Your task to perform on an android device: What's on my calendar today? Image 0: 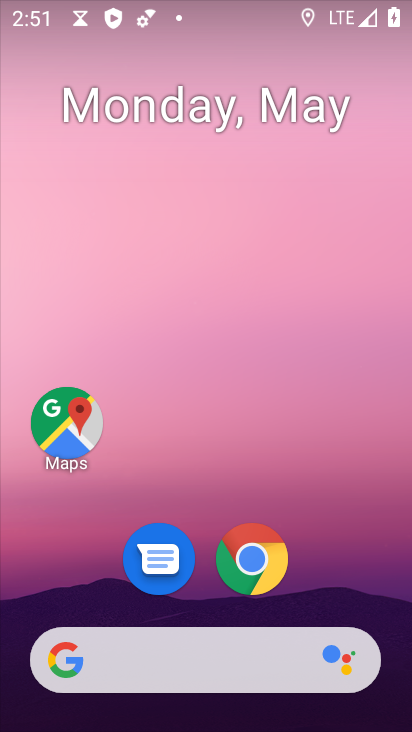
Step 0: drag from (353, 590) to (354, 110)
Your task to perform on an android device: What's on my calendar today? Image 1: 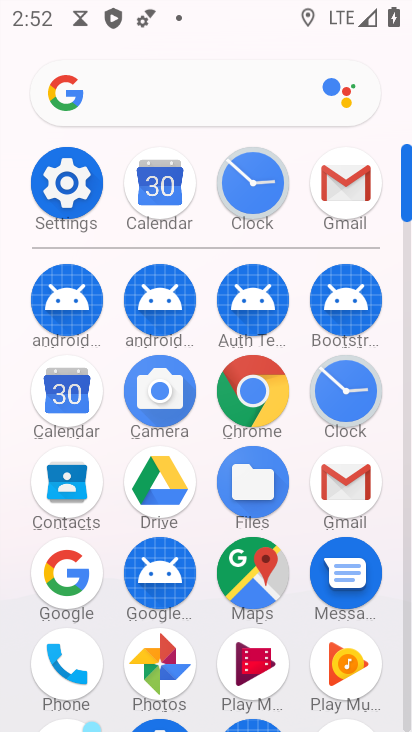
Step 1: click (72, 407)
Your task to perform on an android device: What's on my calendar today? Image 2: 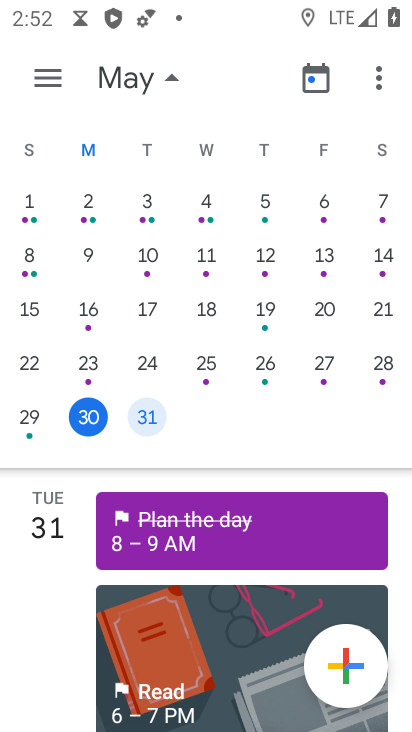
Step 2: click (88, 417)
Your task to perform on an android device: What's on my calendar today? Image 3: 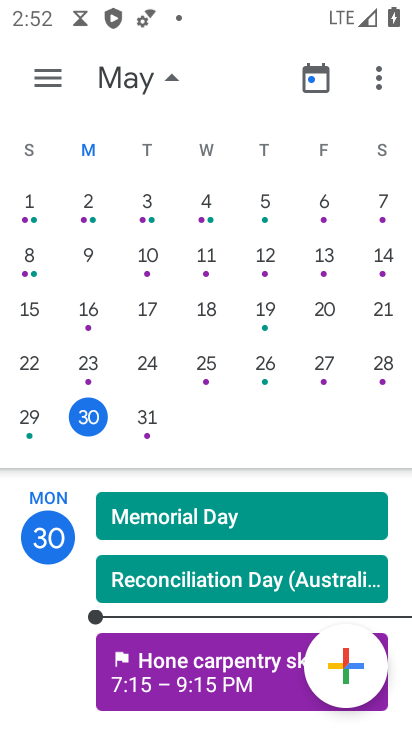
Step 3: task complete